Your task to perform on an android device: Open settings on Google Maps Image 0: 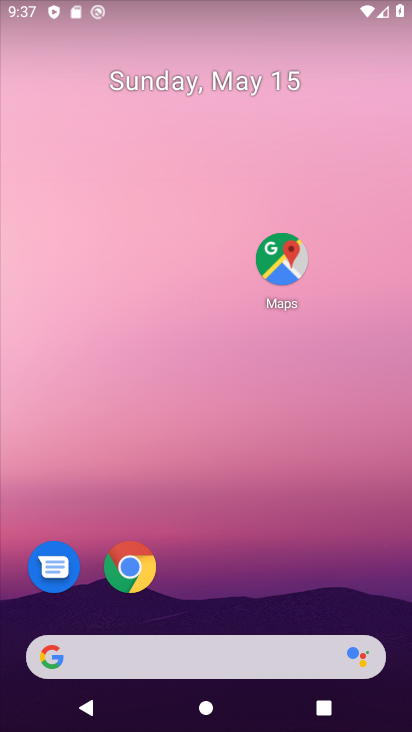
Step 0: drag from (251, 570) to (254, 468)
Your task to perform on an android device: Open settings on Google Maps Image 1: 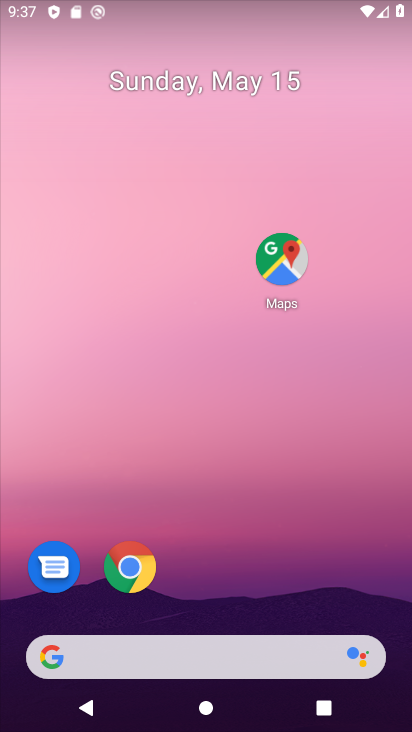
Step 1: click (279, 261)
Your task to perform on an android device: Open settings on Google Maps Image 2: 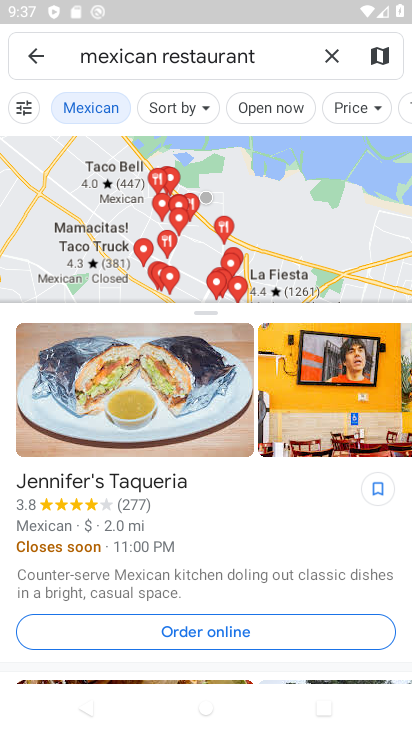
Step 2: click (330, 53)
Your task to perform on an android device: Open settings on Google Maps Image 3: 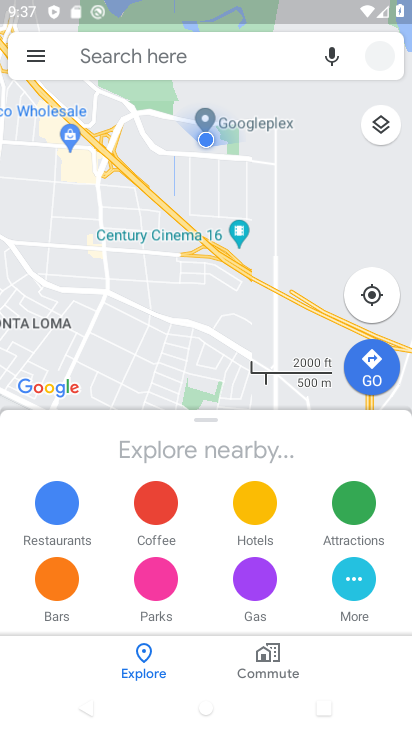
Step 3: click (39, 55)
Your task to perform on an android device: Open settings on Google Maps Image 4: 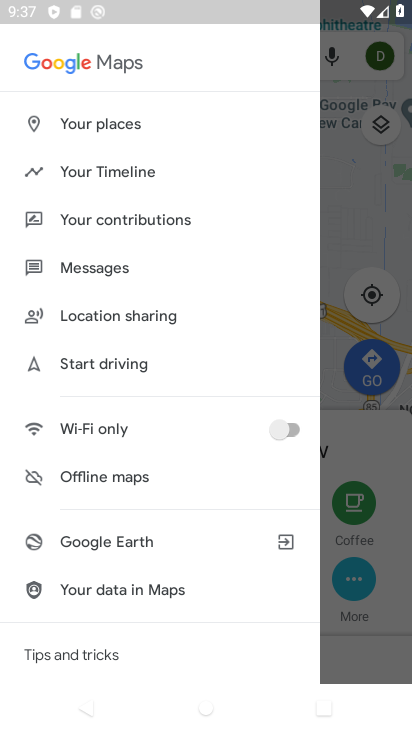
Step 4: drag from (173, 572) to (130, 121)
Your task to perform on an android device: Open settings on Google Maps Image 5: 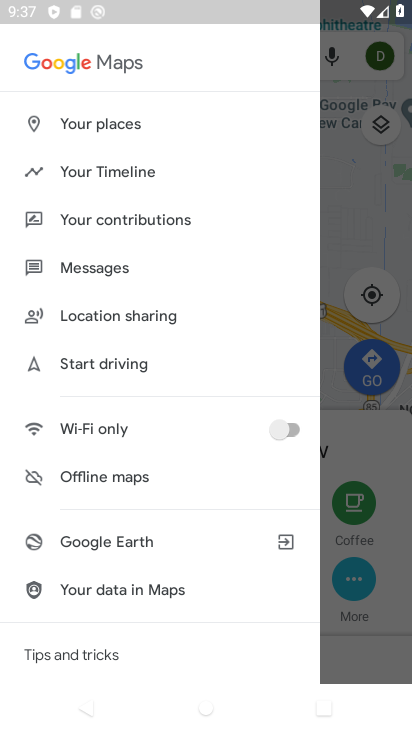
Step 5: drag from (140, 651) to (159, 240)
Your task to perform on an android device: Open settings on Google Maps Image 6: 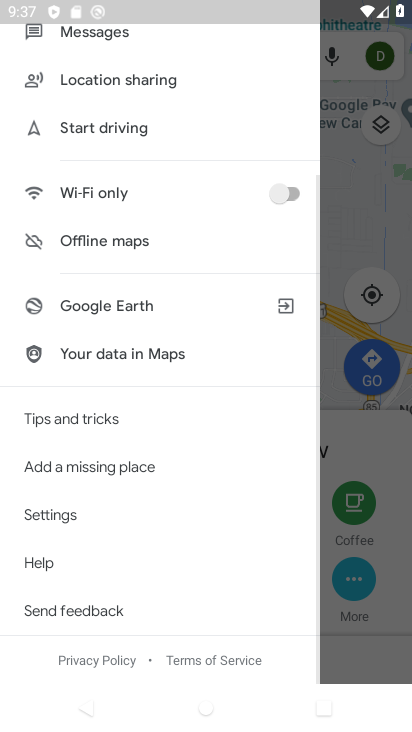
Step 6: click (45, 518)
Your task to perform on an android device: Open settings on Google Maps Image 7: 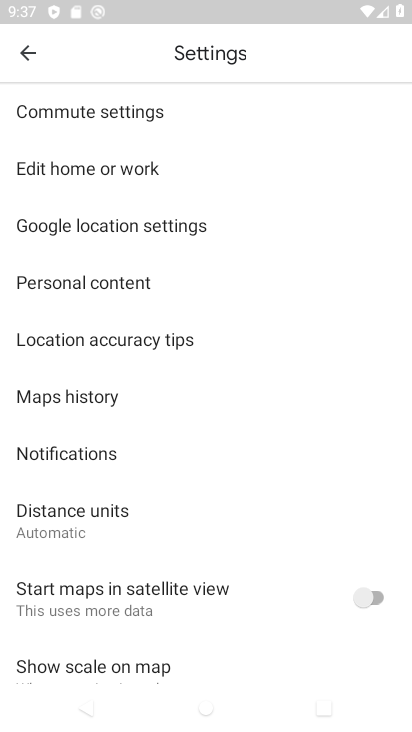
Step 7: task complete